Your task to perform on an android device: What's on my calendar today? Image 0: 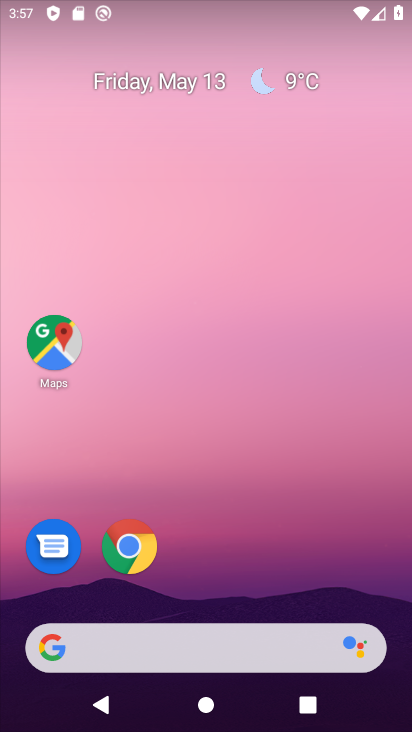
Step 0: drag from (251, 623) to (212, 12)
Your task to perform on an android device: What's on my calendar today? Image 1: 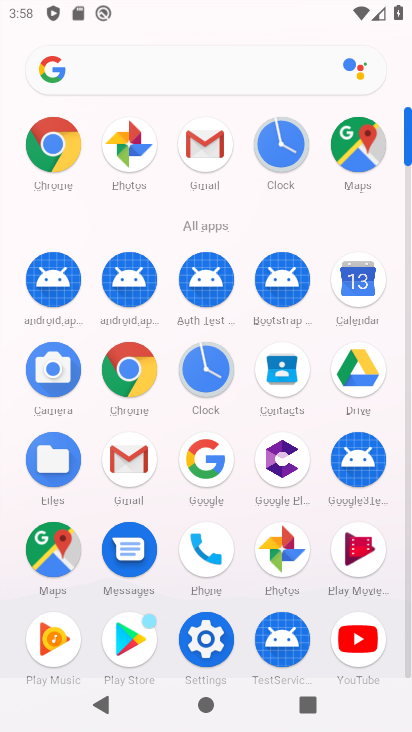
Step 1: click (361, 293)
Your task to perform on an android device: What's on my calendar today? Image 2: 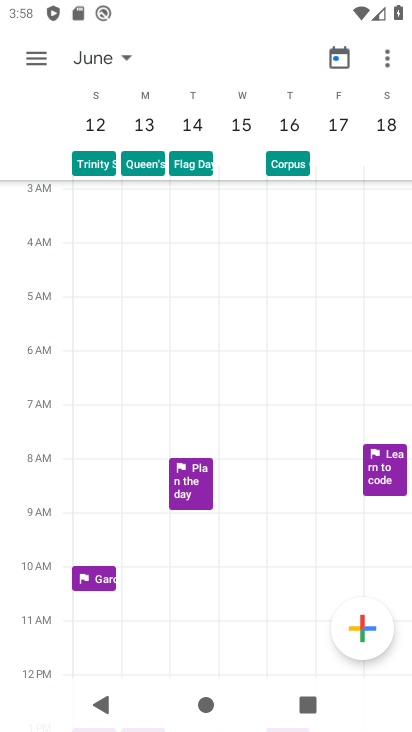
Step 2: click (335, 51)
Your task to perform on an android device: What's on my calendar today? Image 3: 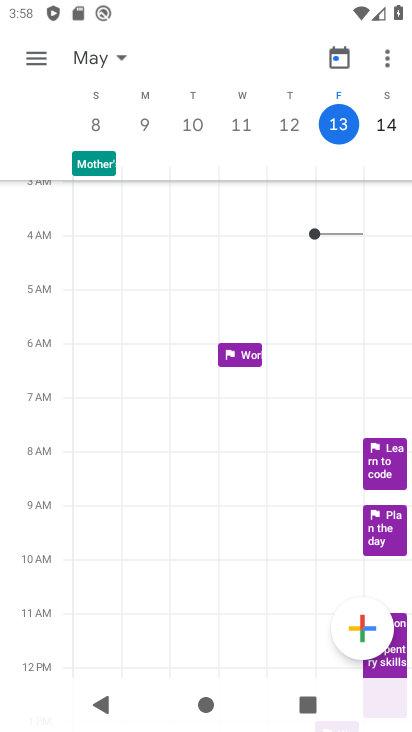
Step 3: click (328, 128)
Your task to perform on an android device: What's on my calendar today? Image 4: 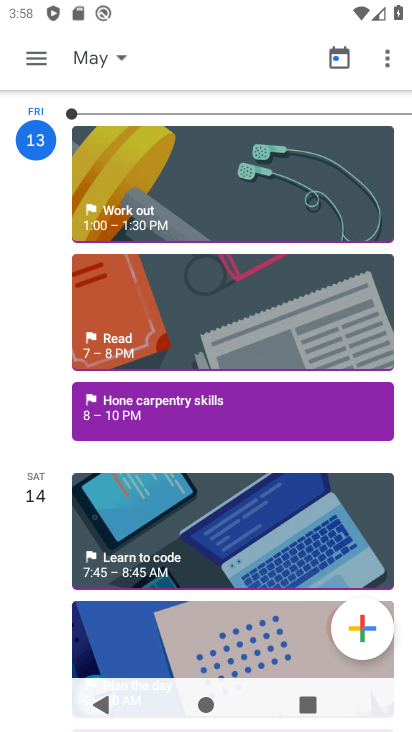
Step 4: task complete